Your task to perform on an android device: snooze an email in the gmail app Image 0: 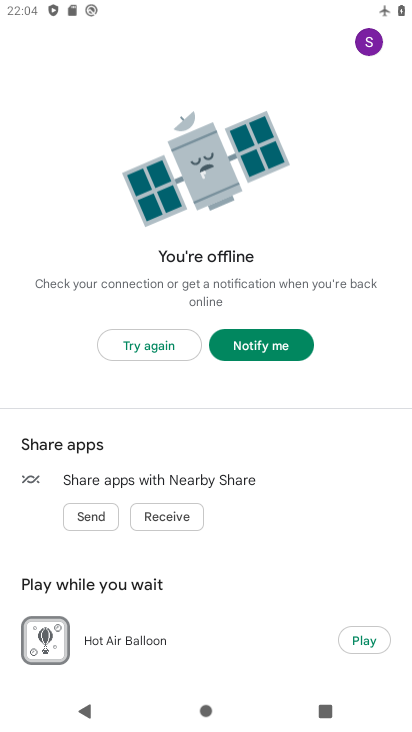
Step 0: press home button
Your task to perform on an android device: snooze an email in the gmail app Image 1: 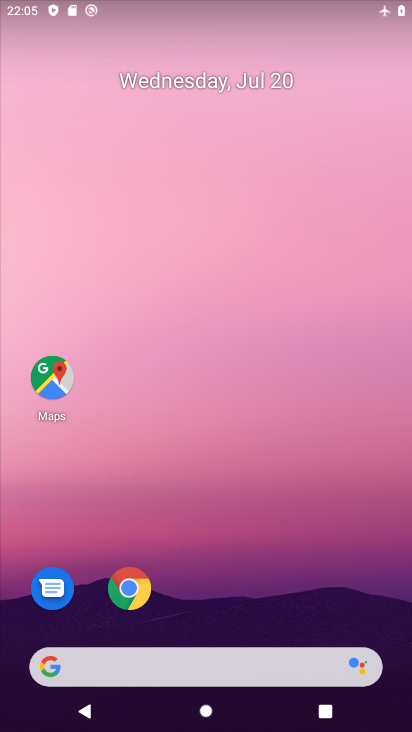
Step 1: drag from (357, 603) to (331, 83)
Your task to perform on an android device: snooze an email in the gmail app Image 2: 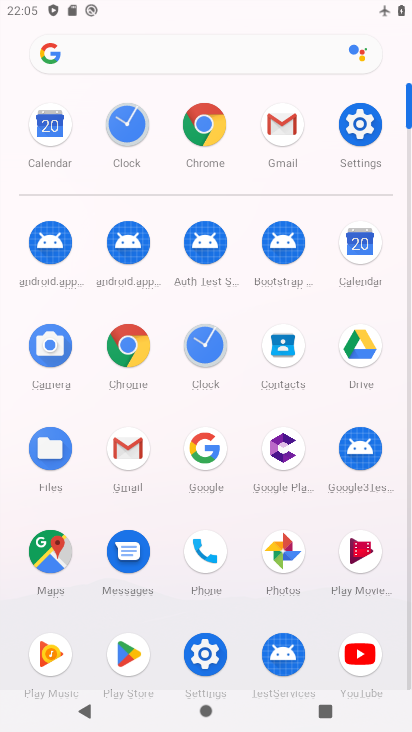
Step 2: click (126, 443)
Your task to perform on an android device: snooze an email in the gmail app Image 3: 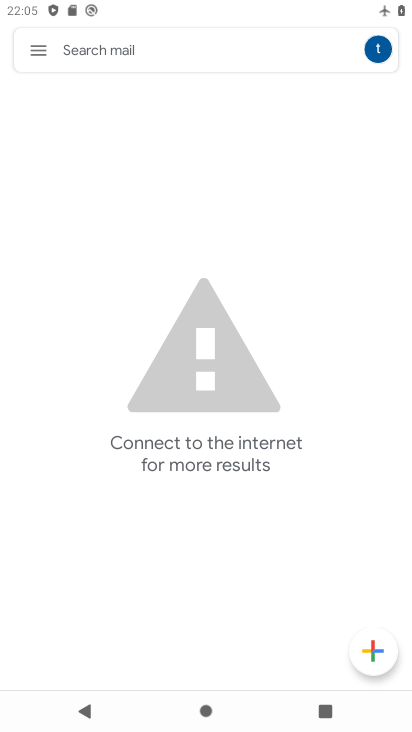
Step 3: click (39, 44)
Your task to perform on an android device: snooze an email in the gmail app Image 4: 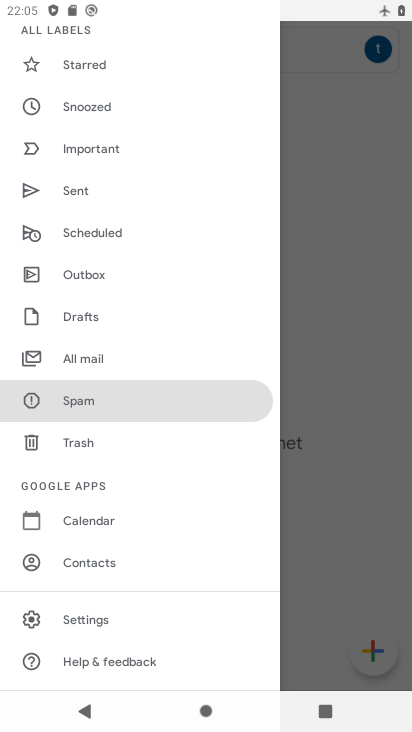
Step 4: click (93, 104)
Your task to perform on an android device: snooze an email in the gmail app Image 5: 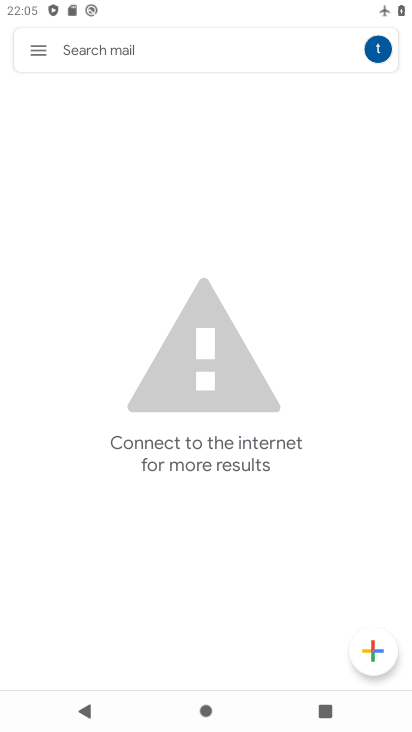
Step 5: task complete